Your task to perform on an android device: Open Reddit.com Image 0: 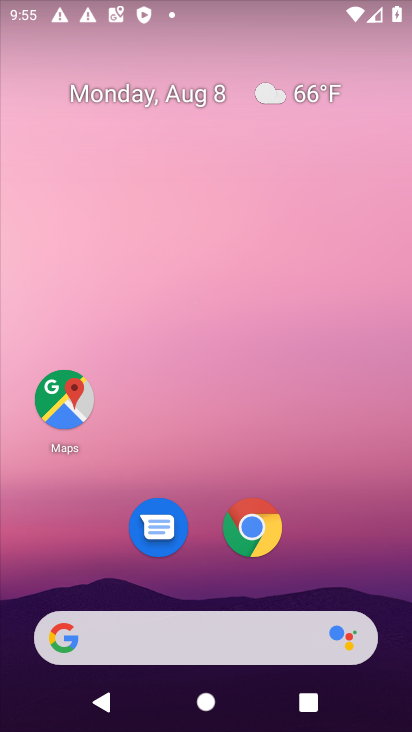
Step 0: click (253, 519)
Your task to perform on an android device: Open Reddit.com Image 1: 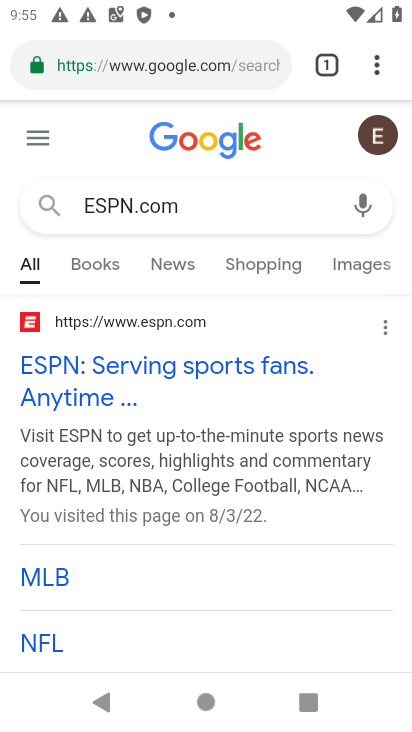
Step 1: click (239, 65)
Your task to perform on an android device: Open Reddit.com Image 2: 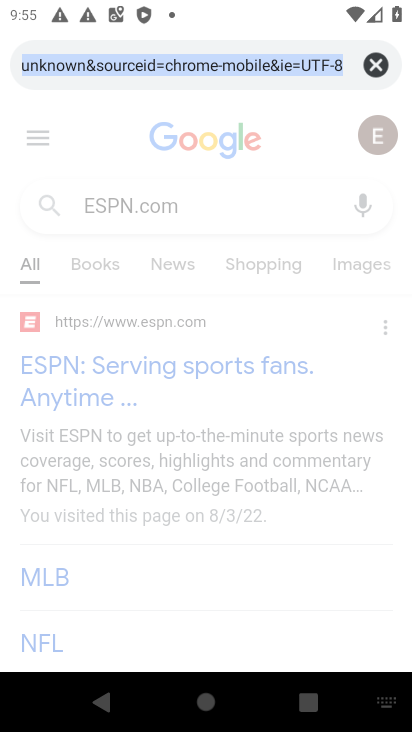
Step 2: click (370, 61)
Your task to perform on an android device: Open Reddit.com Image 3: 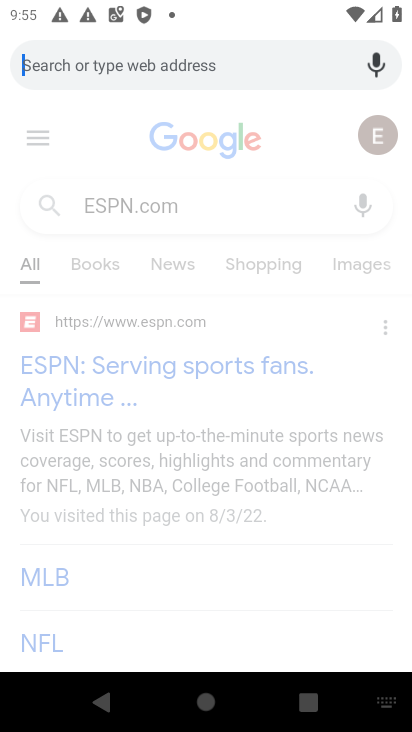
Step 3: type "Reddit.com"
Your task to perform on an android device: Open Reddit.com Image 4: 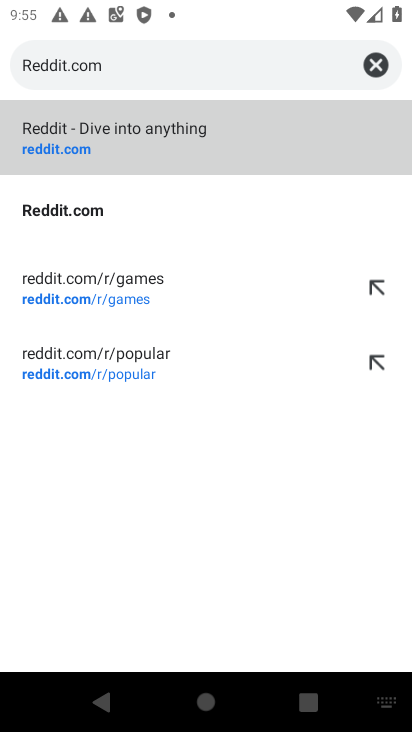
Step 4: click (65, 204)
Your task to perform on an android device: Open Reddit.com Image 5: 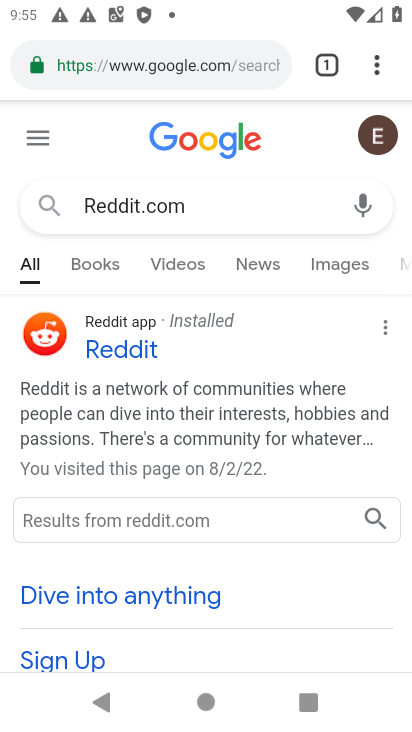
Step 5: task complete